Your task to perform on an android device: change the upload size in google photos Image 0: 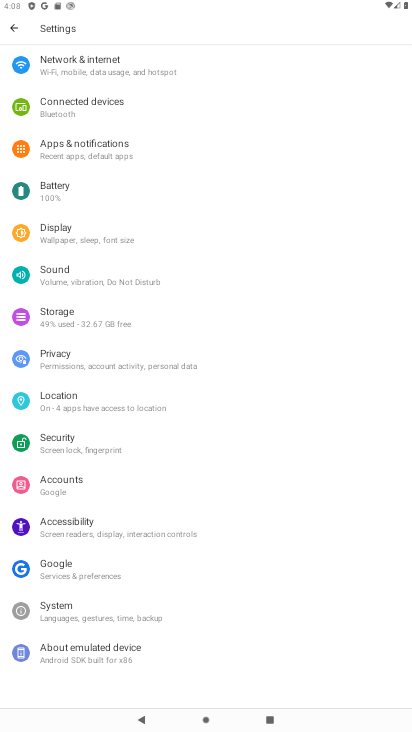
Step 0: press home button
Your task to perform on an android device: change the upload size in google photos Image 1: 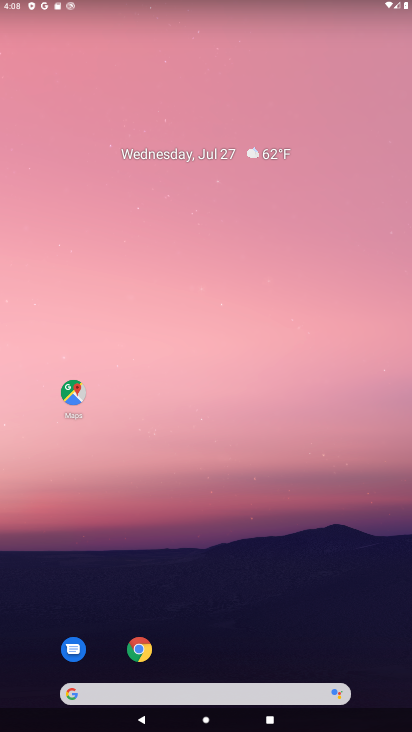
Step 1: drag from (289, 440) to (348, 216)
Your task to perform on an android device: change the upload size in google photos Image 2: 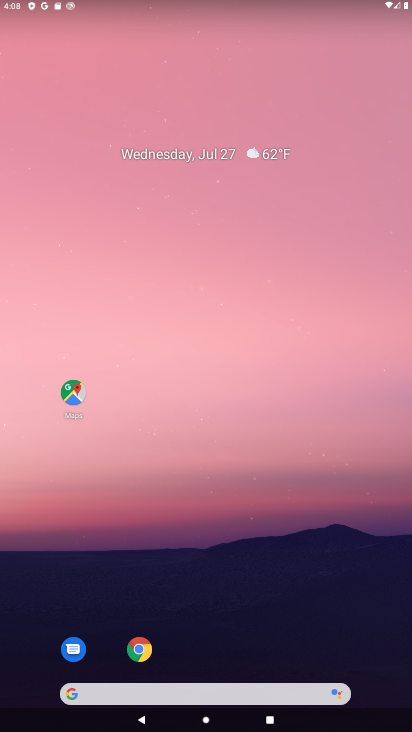
Step 2: drag from (293, 581) to (401, 176)
Your task to perform on an android device: change the upload size in google photos Image 3: 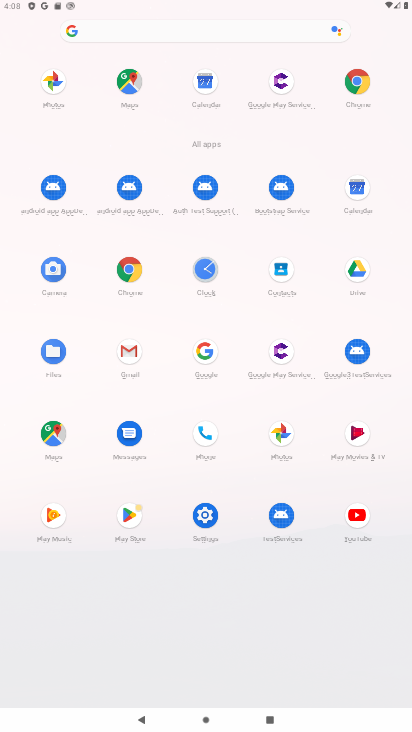
Step 3: click (282, 429)
Your task to perform on an android device: change the upload size in google photos Image 4: 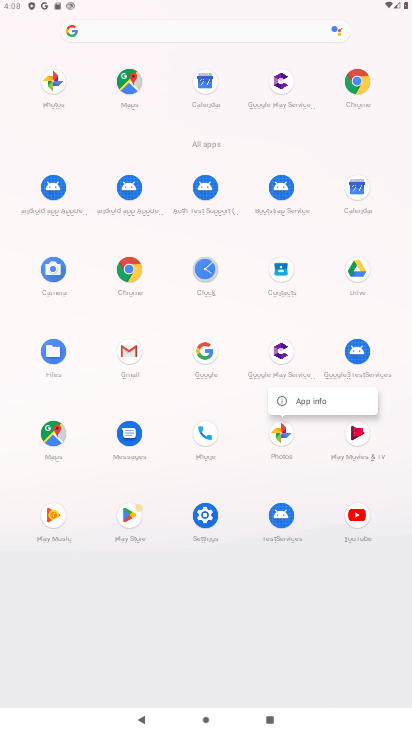
Step 4: click (277, 440)
Your task to perform on an android device: change the upload size in google photos Image 5: 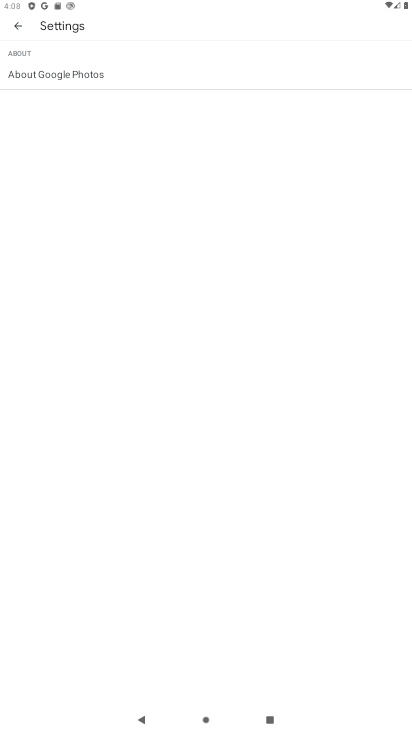
Step 5: task complete